Your task to perform on an android device: Clear the cart on newegg.com. Image 0: 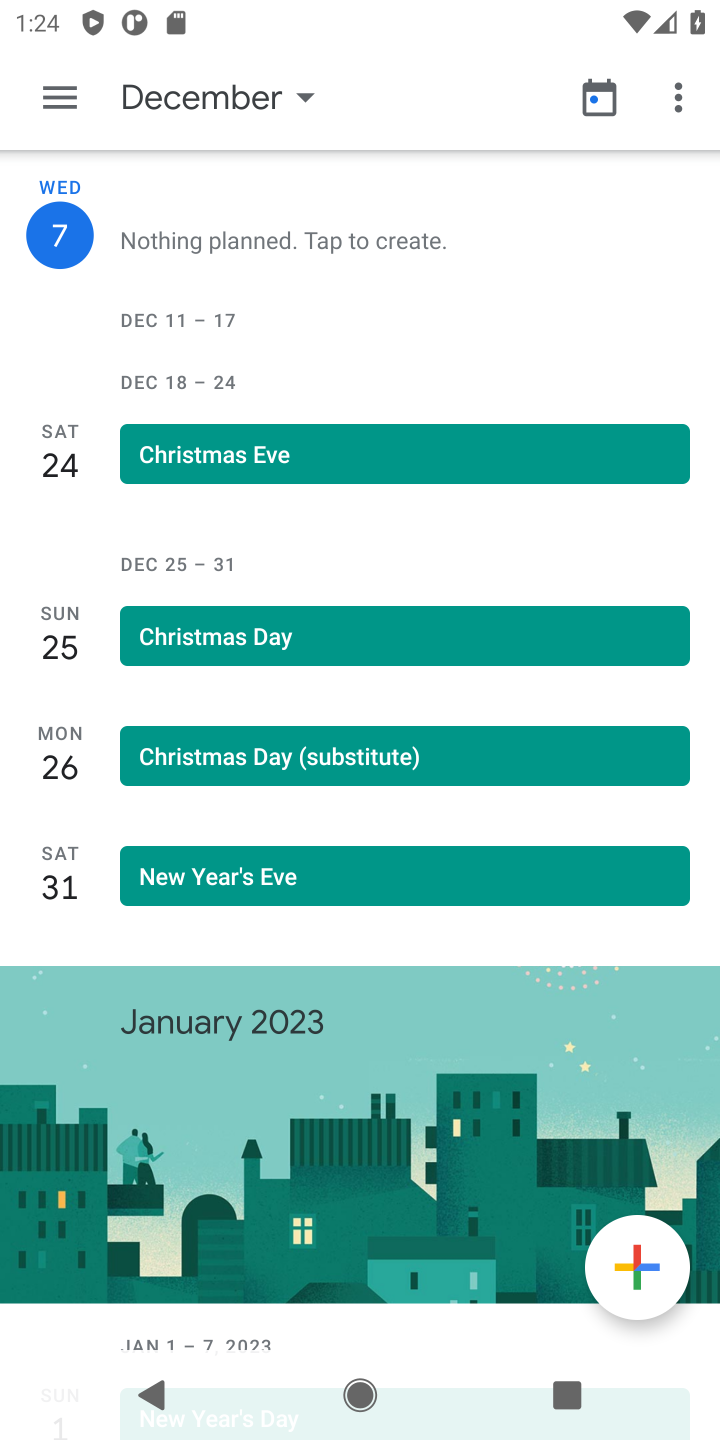
Step 0: press home button
Your task to perform on an android device: Clear the cart on newegg.com. Image 1: 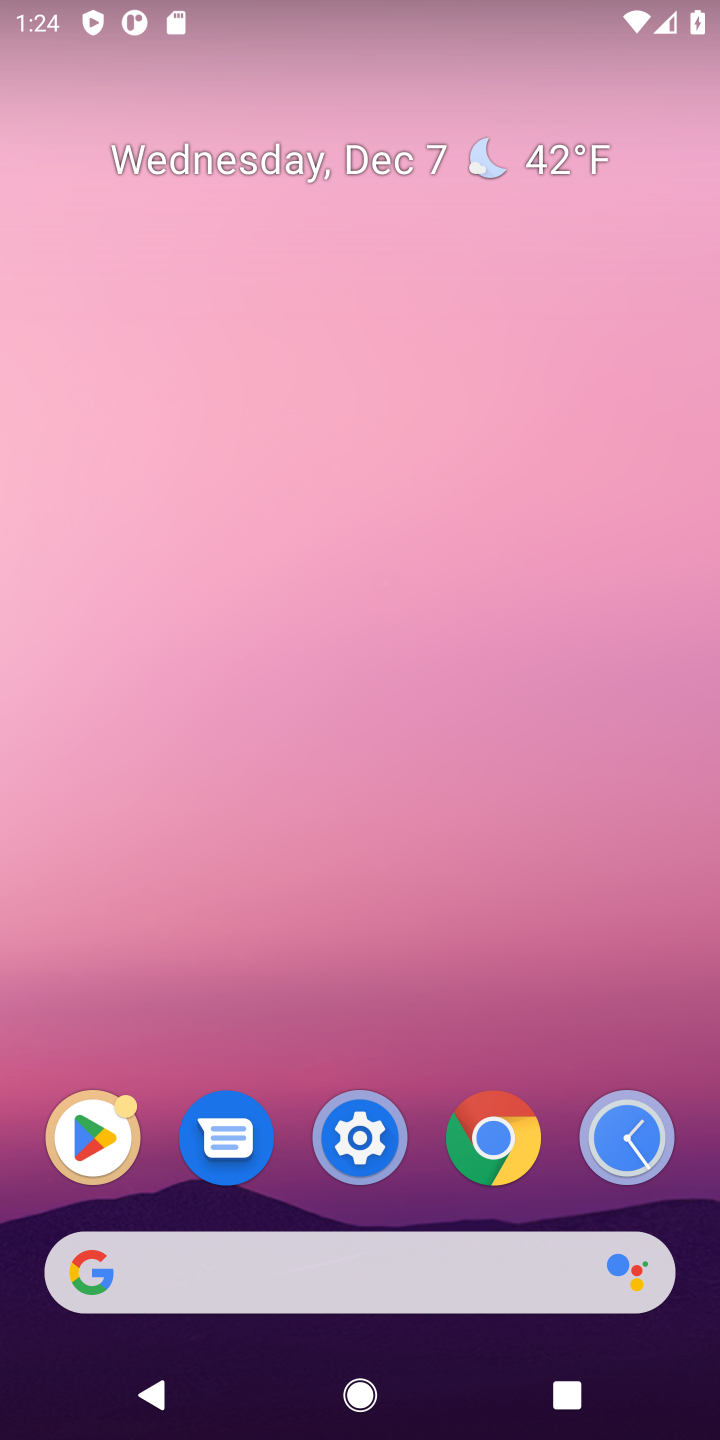
Step 1: click (338, 1283)
Your task to perform on an android device: Clear the cart on newegg.com. Image 2: 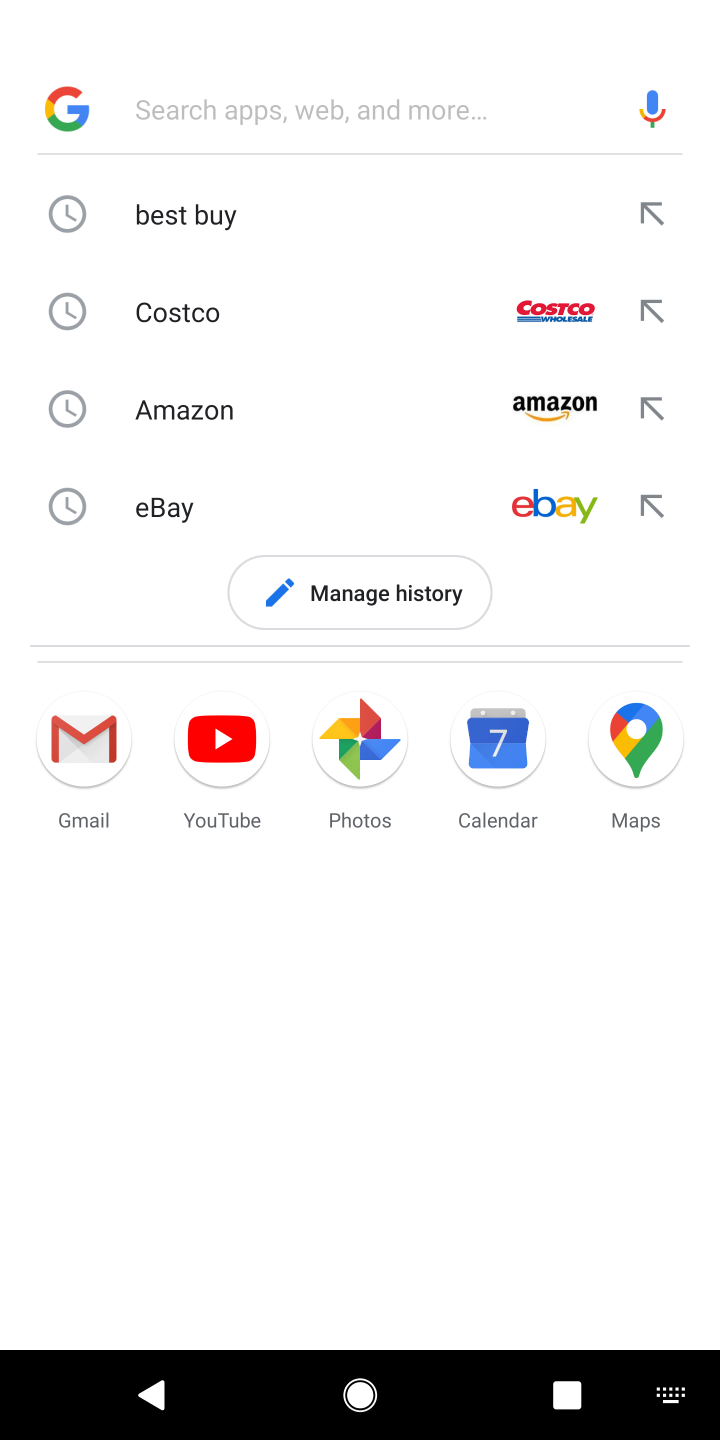
Step 2: type "newegg"
Your task to perform on an android device: Clear the cart on newegg.com. Image 3: 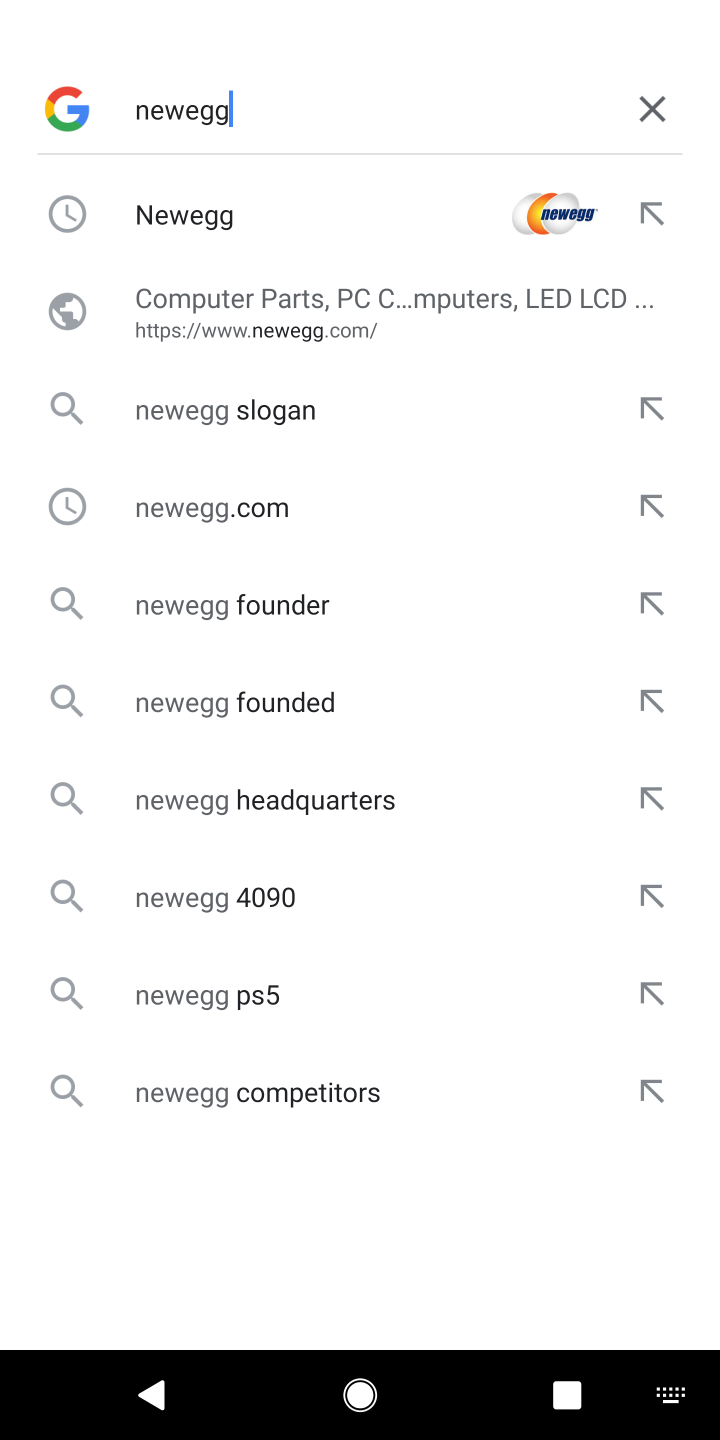
Step 3: click (181, 191)
Your task to perform on an android device: Clear the cart on newegg.com. Image 4: 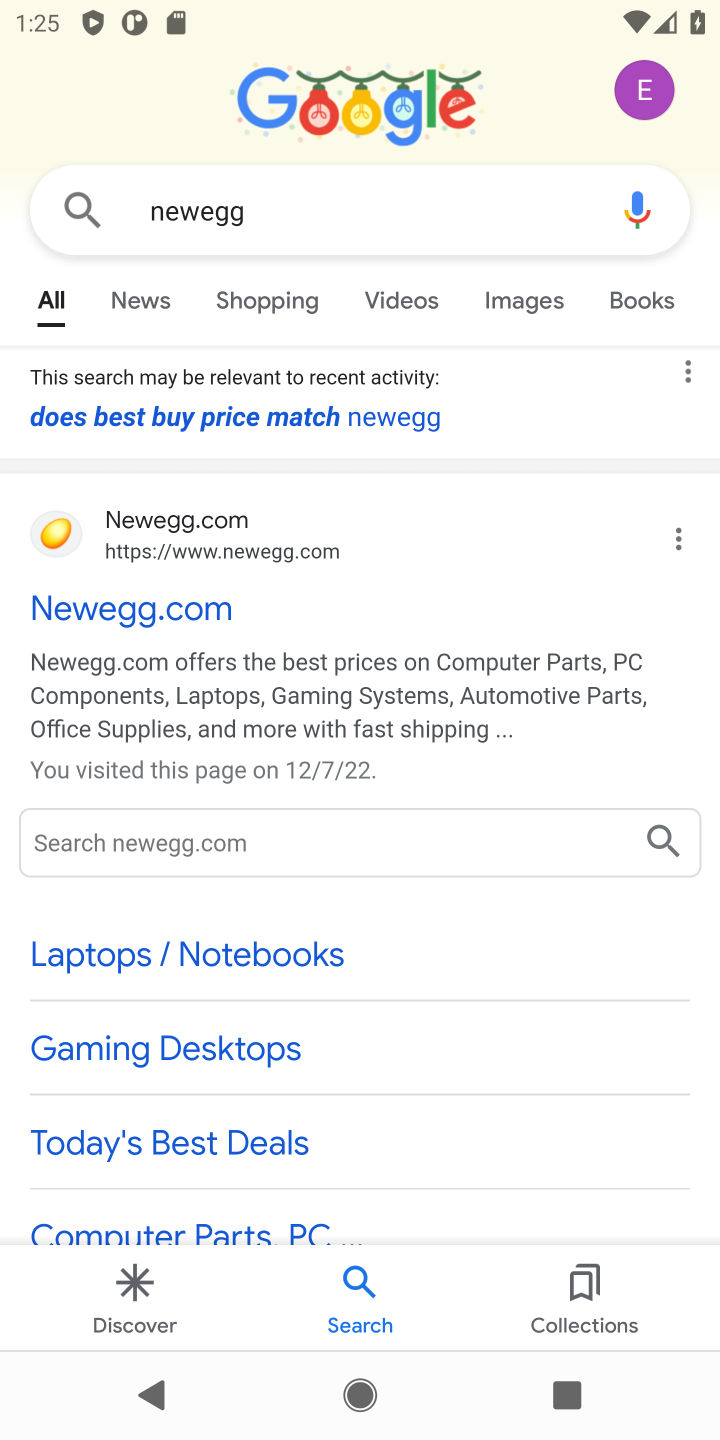
Step 4: click (142, 614)
Your task to perform on an android device: Clear the cart on newegg.com. Image 5: 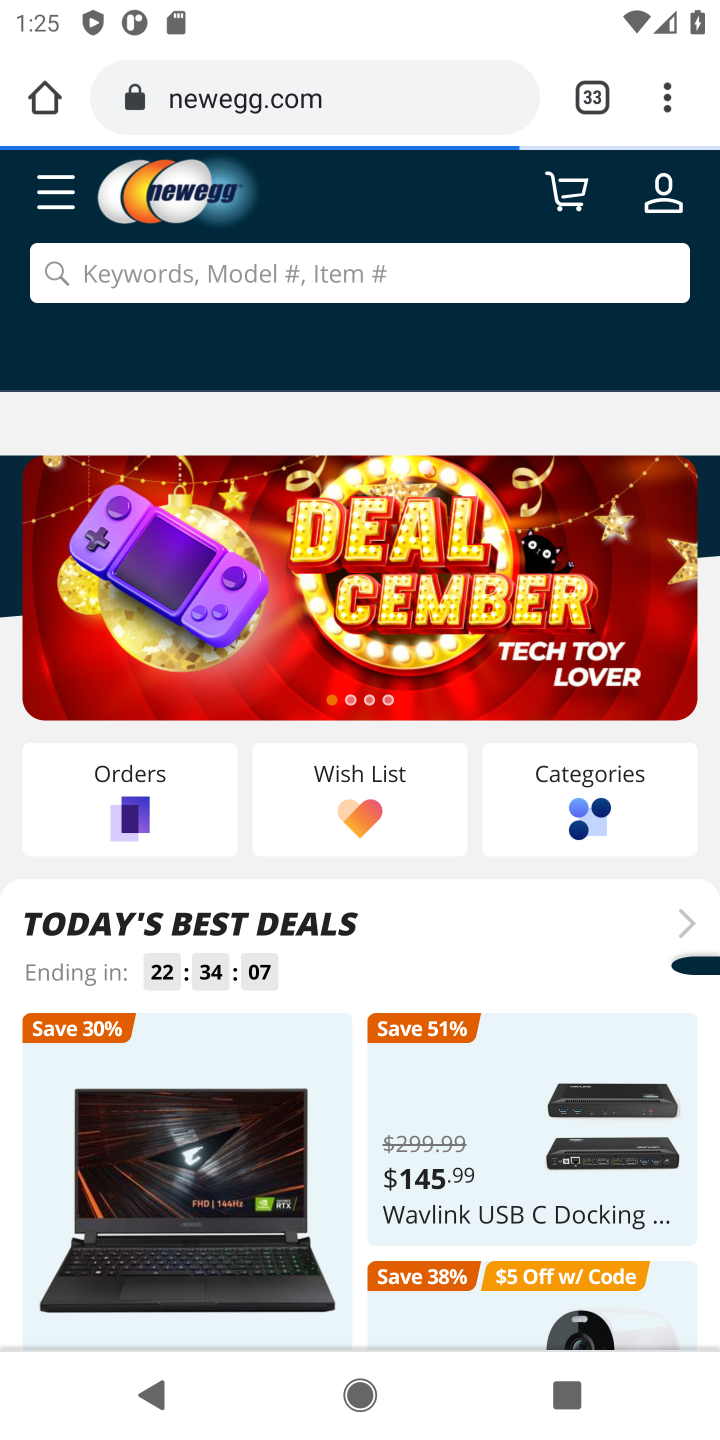
Step 5: task complete